Your task to perform on an android device: set the stopwatch Image 0: 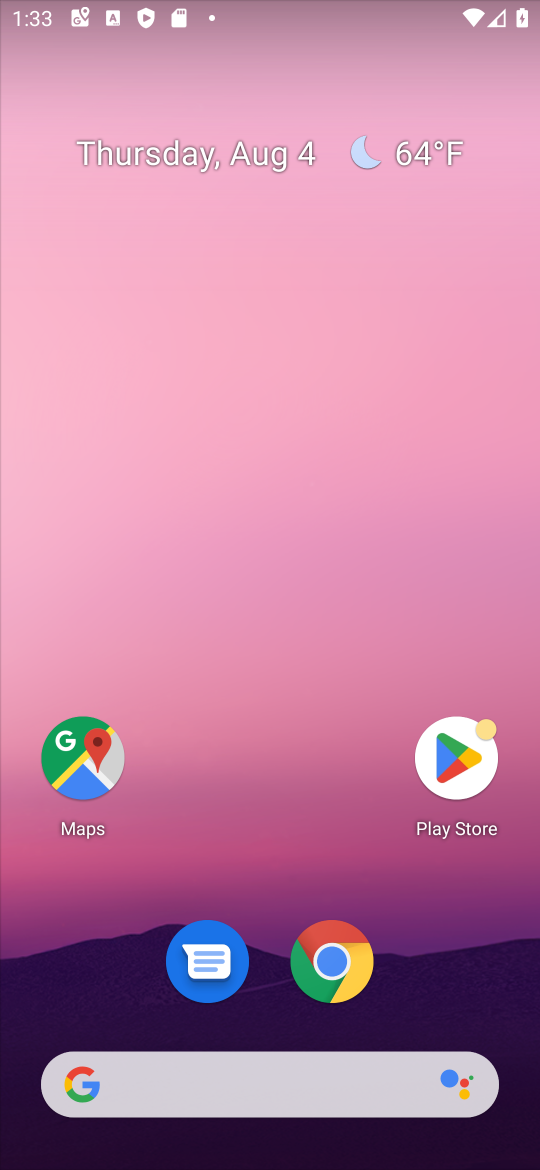
Step 0: drag from (263, 722) to (310, 0)
Your task to perform on an android device: set the stopwatch Image 1: 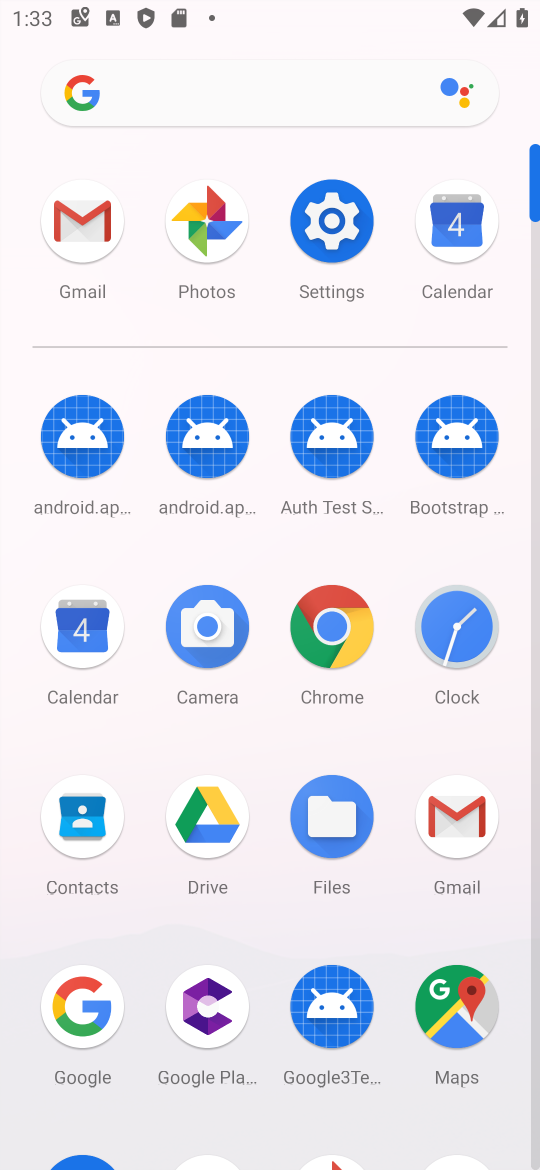
Step 1: click (448, 630)
Your task to perform on an android device: set the stopwatch Image 2: 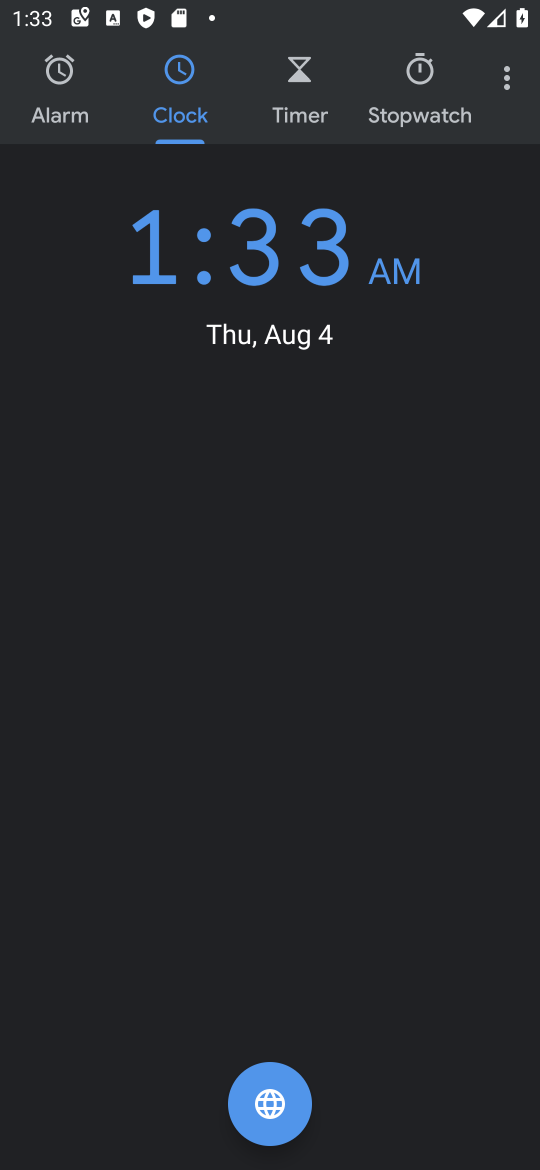
Step 2: click (412, 84)
Your task to perform on an android device: set the stopwatch Image 3: 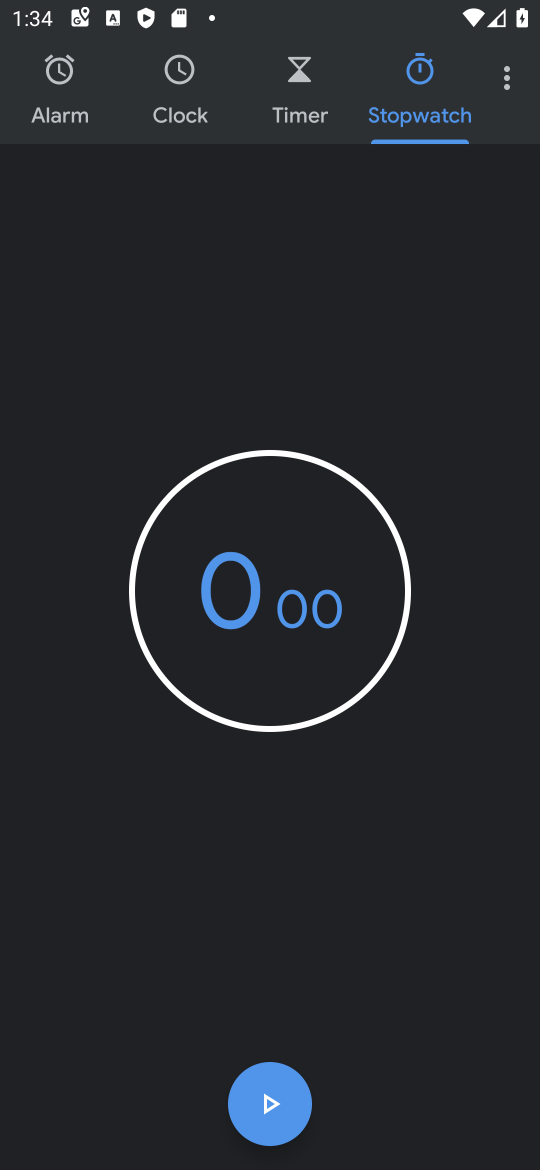
Step 3: task complete